Your task to perform on an android device: change the clock style Image 0: 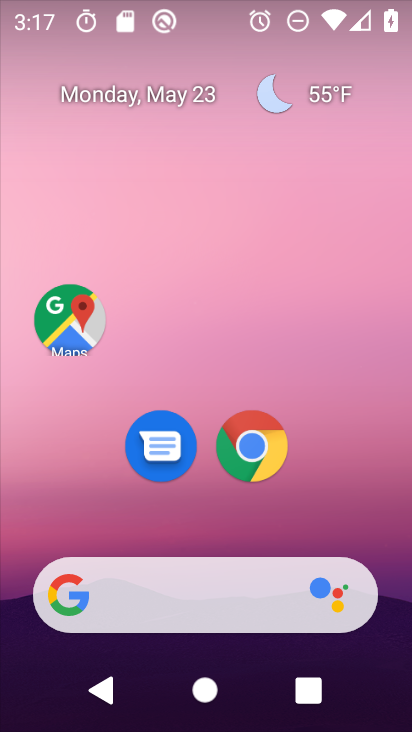
Step 0: drag from (199, 465) to (150, 133)
Your task to perform on an android device: change the clock style Image 1: 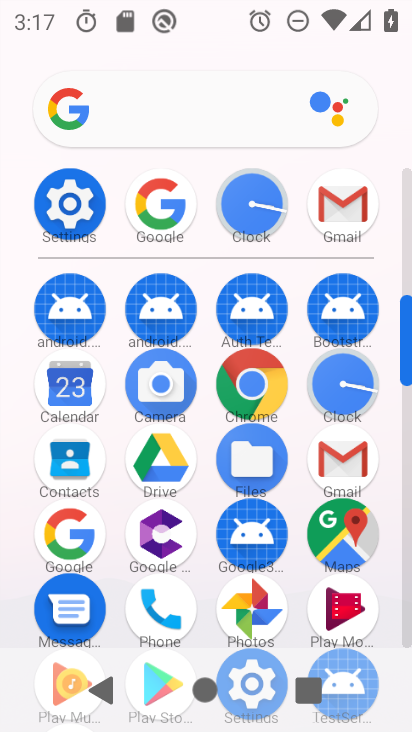
Step 1: click (230, 213)
Your task to perform on an android device: change the clock style Image 2: 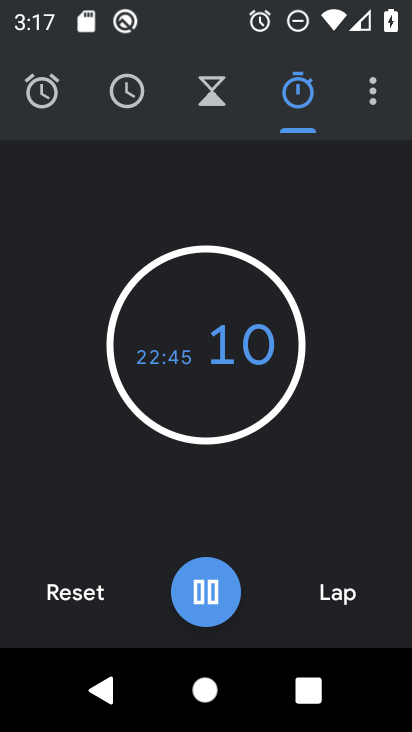
Step 2: click (385, 84)
Your task to perform on an android device: change the clock style Image 3: 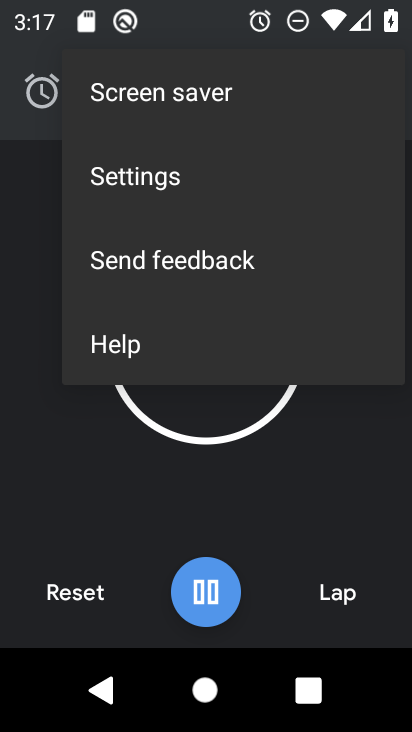
Step 3: click (177, 171)
Your task to perform on an android device: change the clock style Image 4: 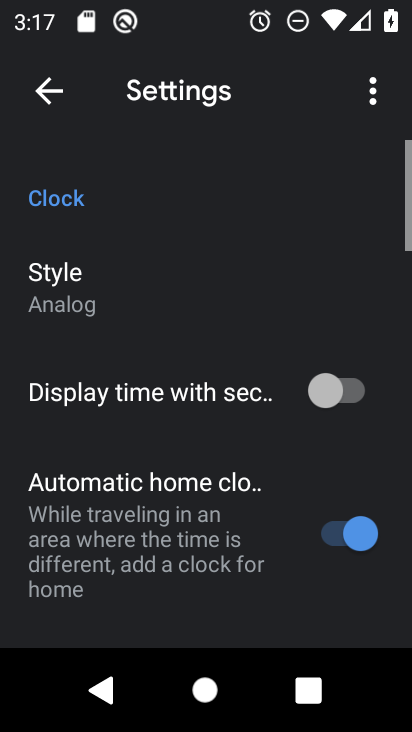
Step 4: click (70, 291)
Your task to perform on an android device: change the clock style Image 5: 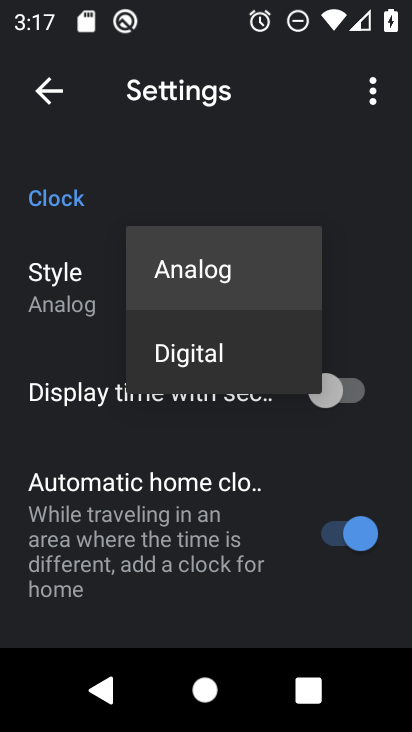
Step 5: click (180, 358)
Your task to perform on an android device: change the clock style Image 6: 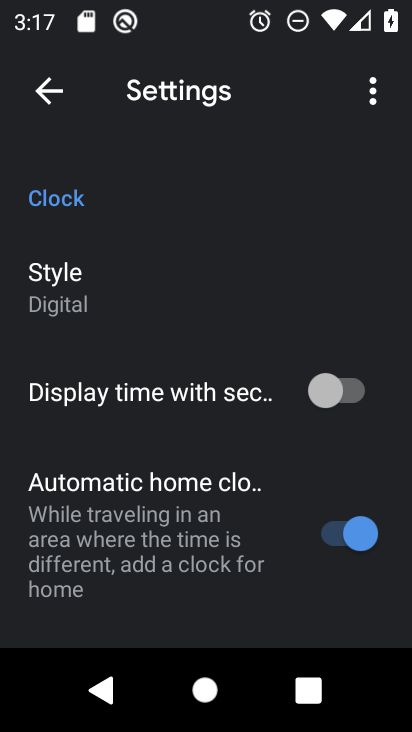
Step 6: task complete